Your task to perform on an android device: Open eBay Image 0: 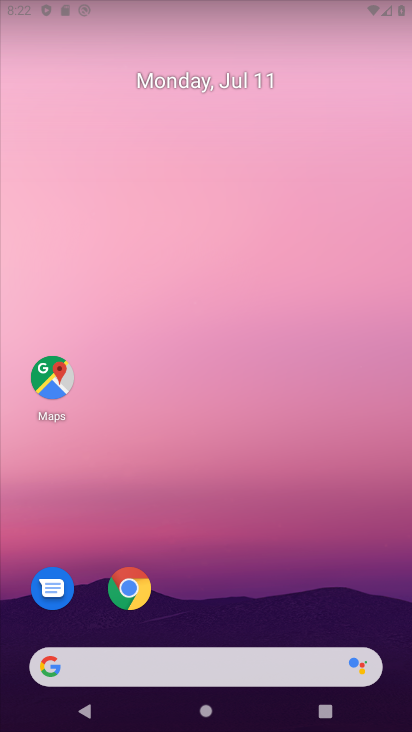
Step 0: click (265, 668)
Your task to perform on an android device: Open eBay Image 1: 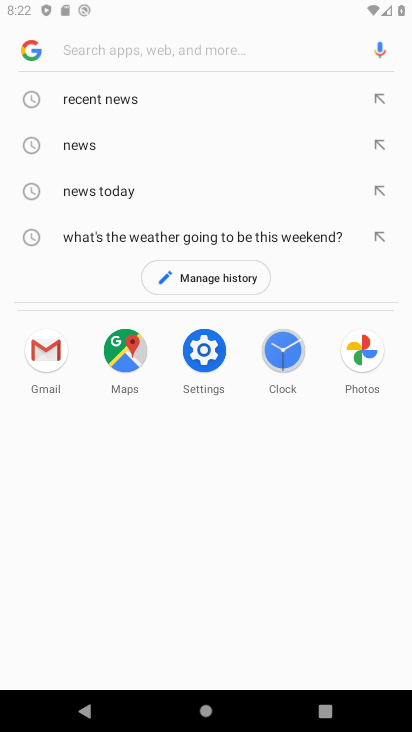
Step 1: type "ebay"
Your task to perform on an android device: Open eBay Image 2: 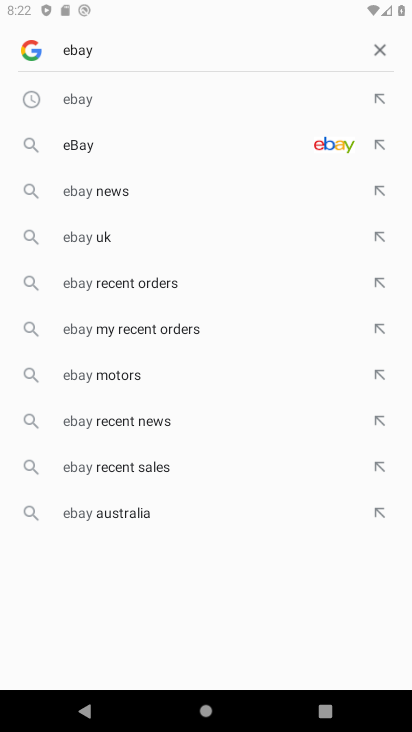
Step 2: click (340, 137)
Your task to perform on an android device: Open eBay Image 3: 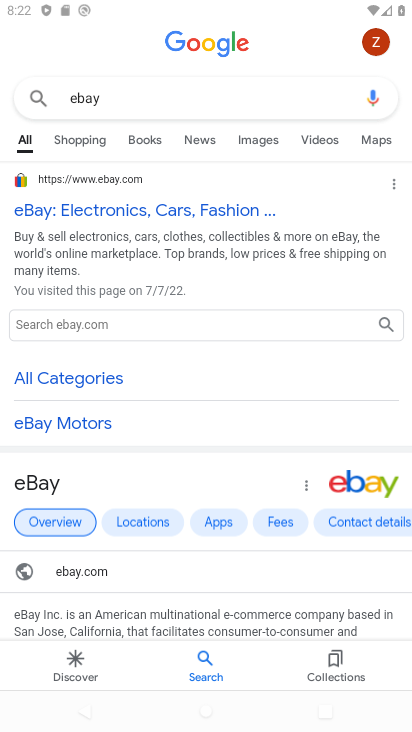
Step 3: click (134, 178)
Your task to perform on an android device: Open eBay Image 4: 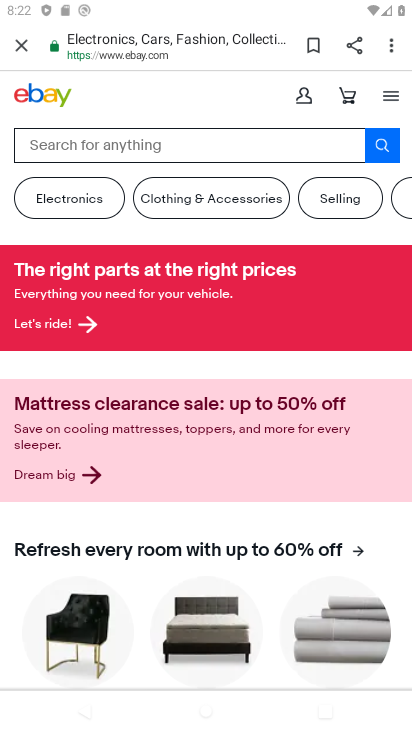
Step 4: task complete